Your task to perform on an android device: Open calendar and show me the third week of next month Image 0: 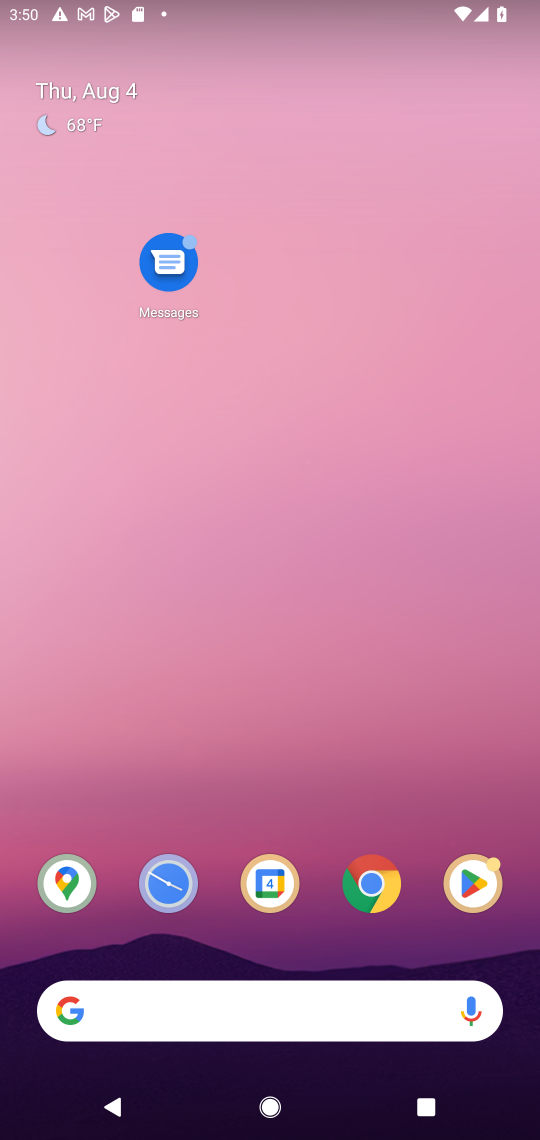
Step 0: drag from (322, 893) to (325, 129)
Your task to perform on an android device: Open calendar and show me the third week of next month Image 1: 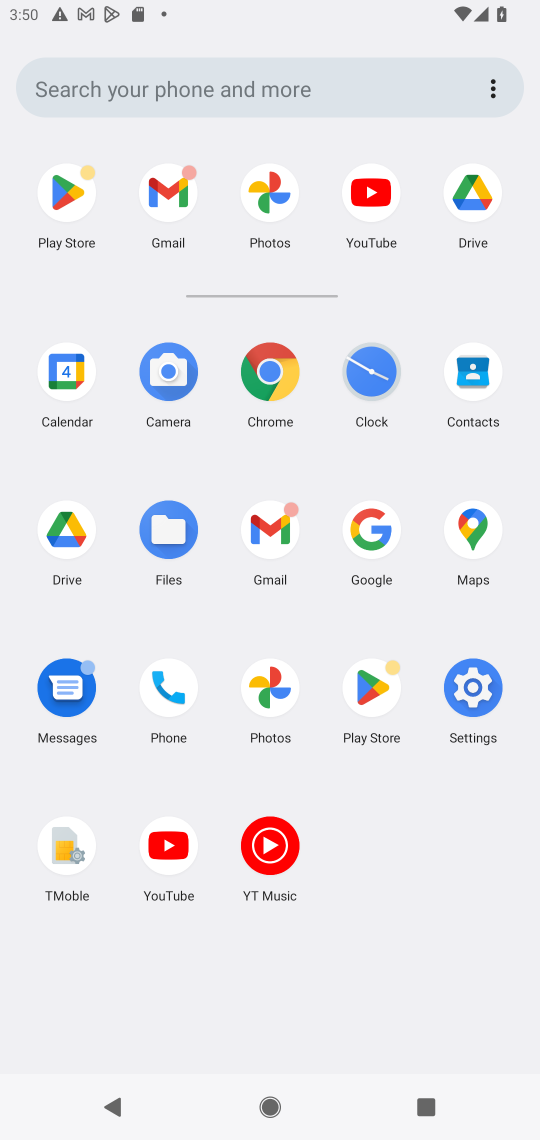
Step 1: click (61, 375)
Your task to perform on an android device: Open calendar and show me the third week of next month Image 2: 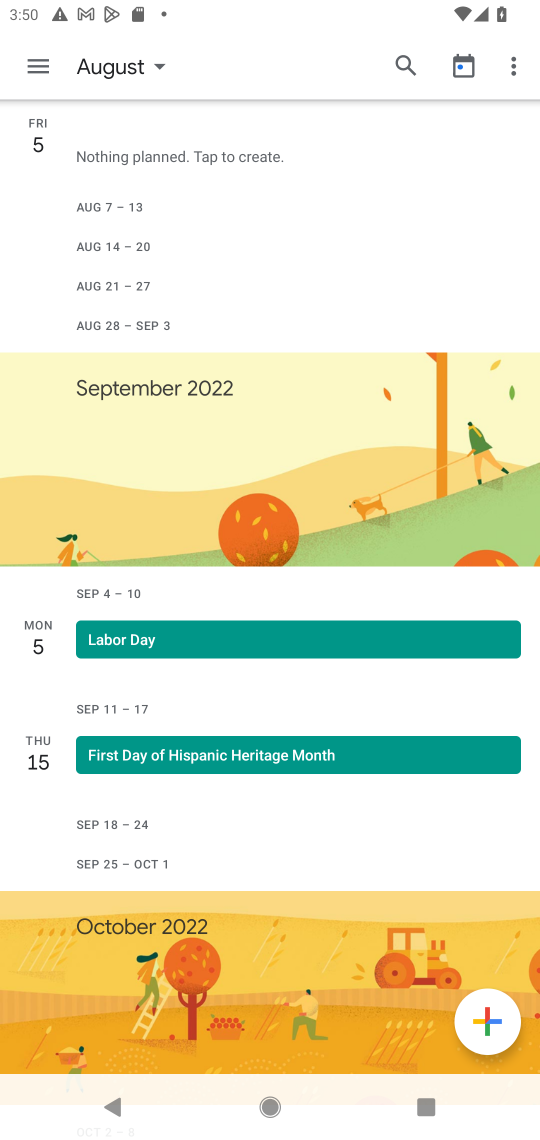
Step 2: click (156, 69)
Your task to perform on an android device: Open calendar and show me the third week of next month Image 3: 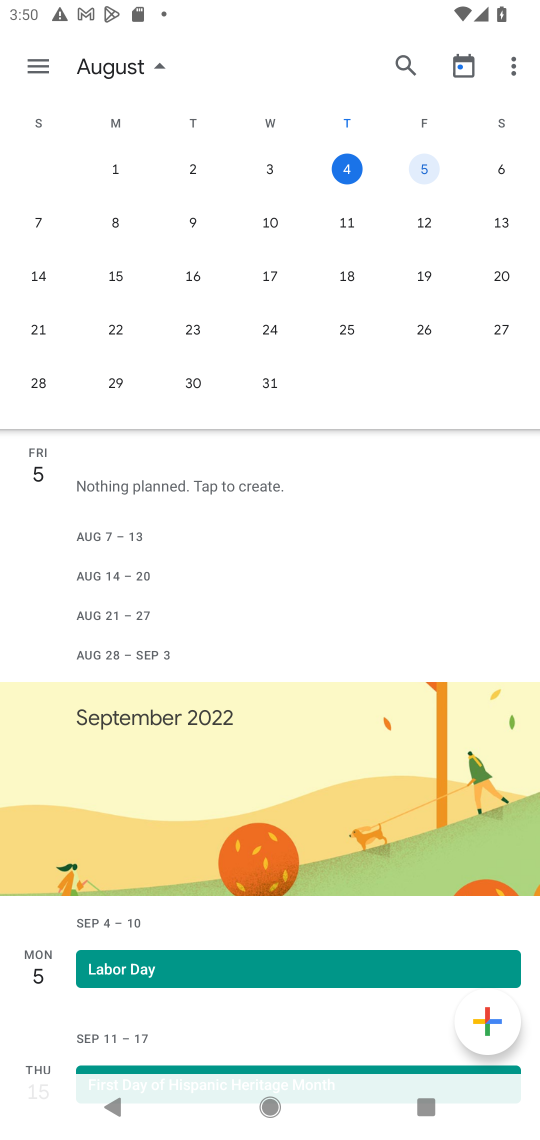
Step 3: drag from (478, 311) to (40, 275)
Your task to perform on an android device: Open calendar and show me the third week of next month Image 4: 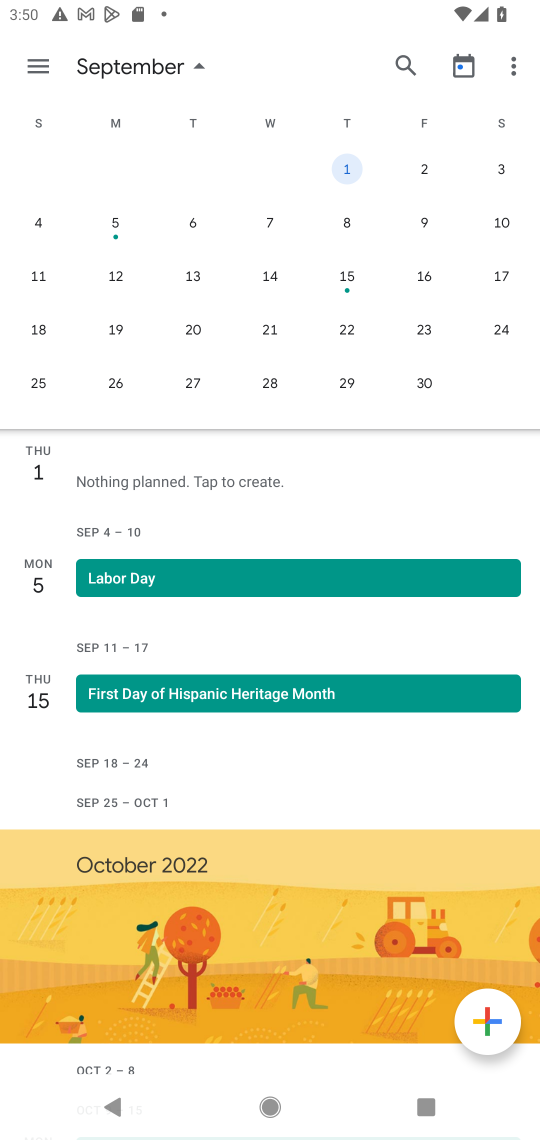
Step 4: click (111, 326)
Your task to perform on an android device: Open calendar and show me the third week of next month Image 5: 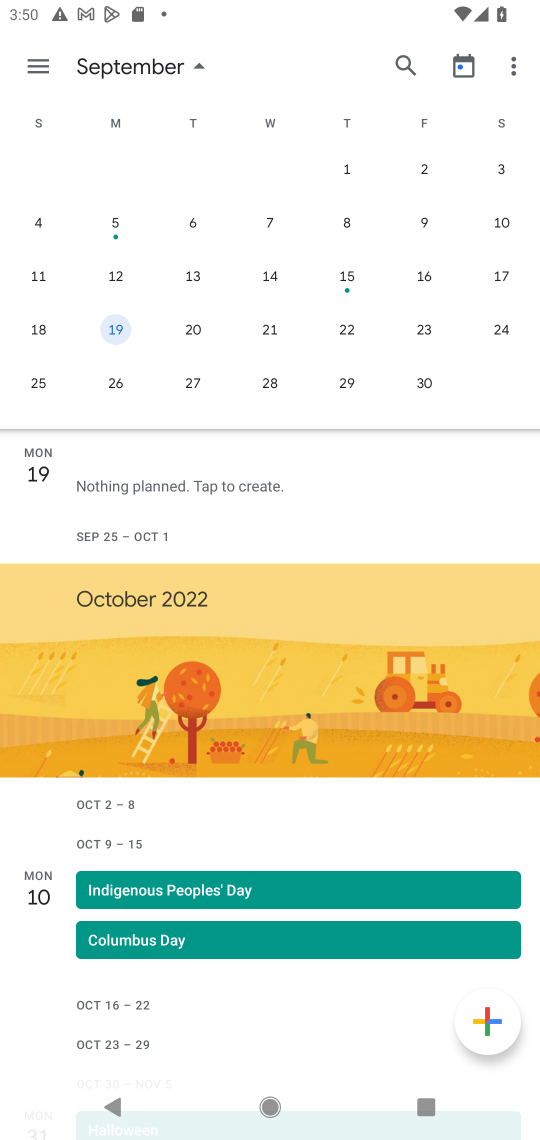
Step 5: click (38, 65)
Your task to perform on an android device: Open calendar and show me the third week of next month Image 6: 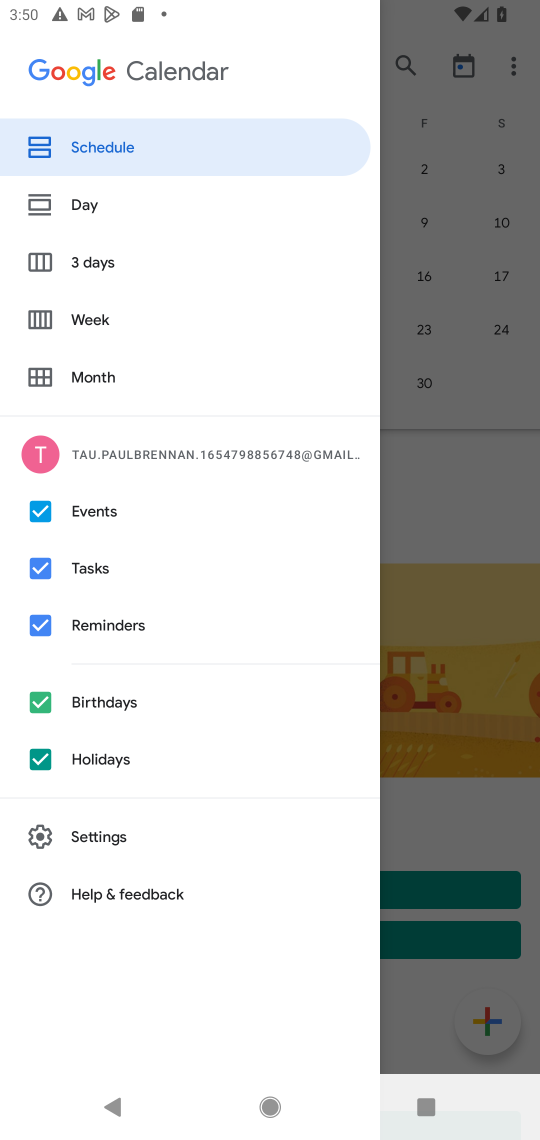
Step 6: click (105, 320)
Your task to perform on an android device: Open calendar and show me the third week of next month Image 7: 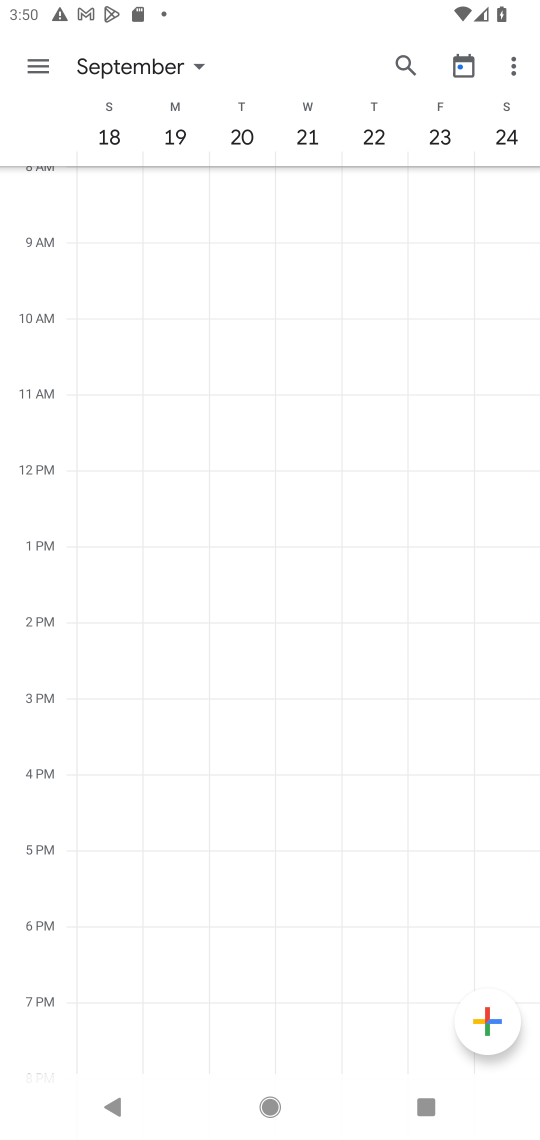
Step 7: task complete